Your task to perform on an android device: Go to Wikipedia Image 0: 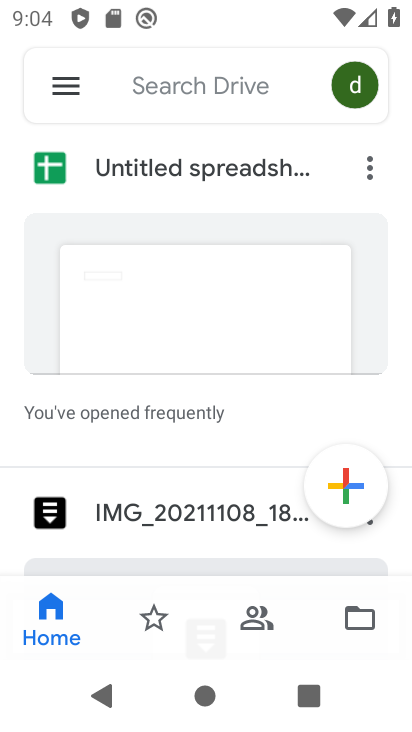
Step 0: press home button
Your task to perform on an android device: Go to Wikipedia Image 1: 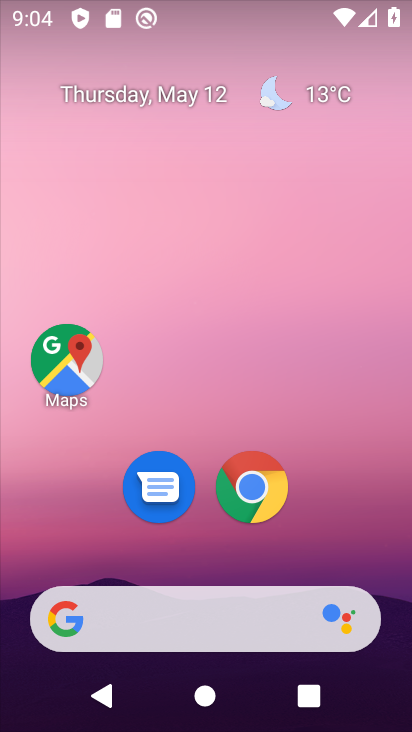
Step 1: click (254, 492)
Your task to perform on an android device: Go to Wikipedia Image 2: 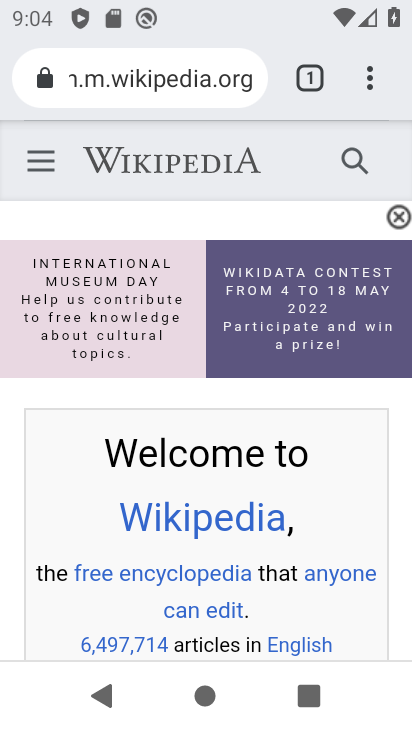
Step 2: task complete